Your task to perform on an android device: Open the stopwatch Image 0: 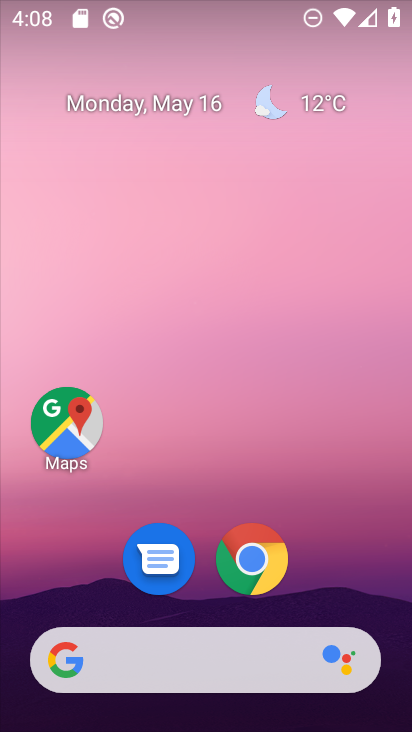
Step 0: drag from (330, 586) to (315, 269)
Your task to perform on an android device: Open the stopwatch Image 1: 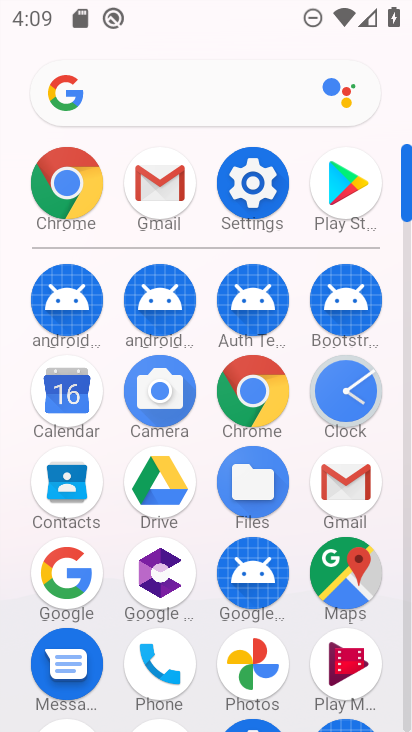
Step 1: click (362, 388)
Your task to perform on an android device: Open the stopwatch Image 2: 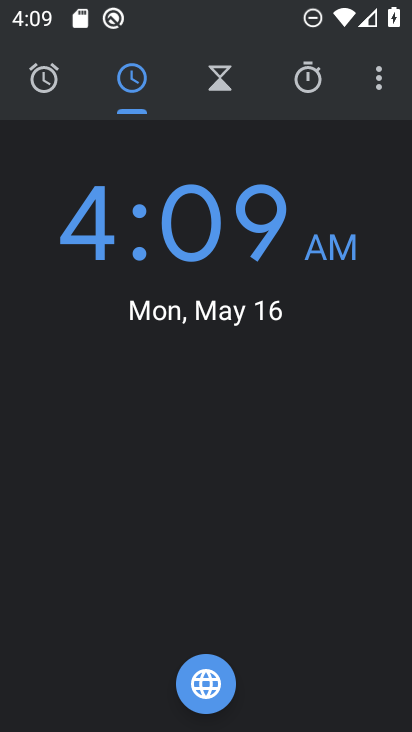
Step 2: click (268, 80)
Your task to perform on an android device: Open the stopwatch Image 3: 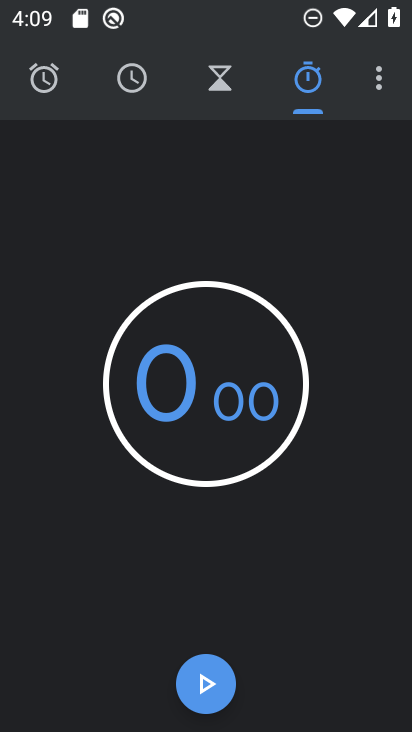
Step 3: task complete